Your task to perform on an android device: Do I have any events tomorrow? Image 0: 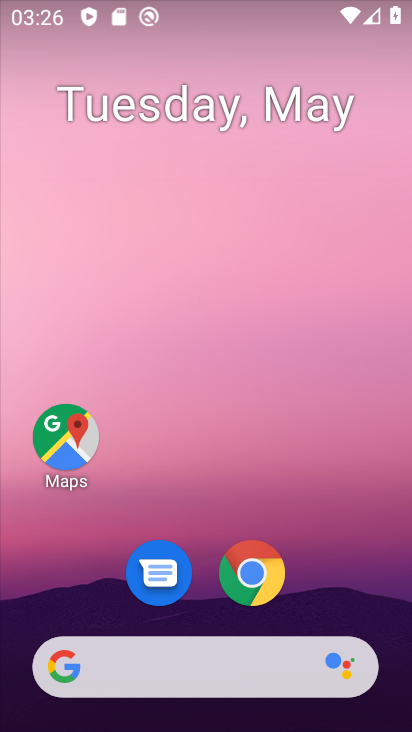
Step 0: drag from (195, 514) to (282, 13)
Your task to perform on an android device: Do I have any events tomorrow? Image 1: 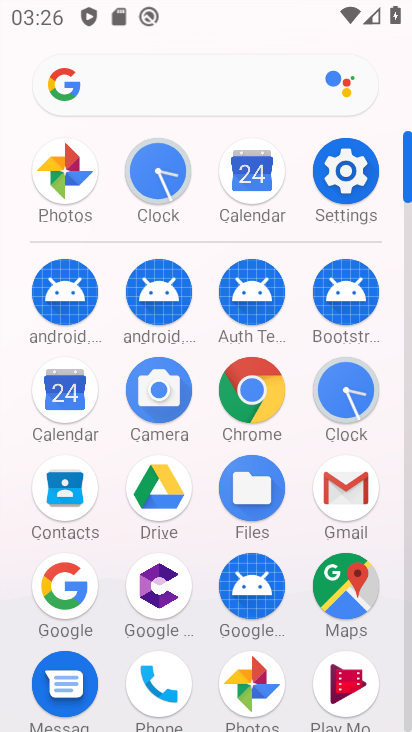
Step 1: click (61, 400)
Your task to perform on an android device: Do I have any events tomorrow? Image 2: 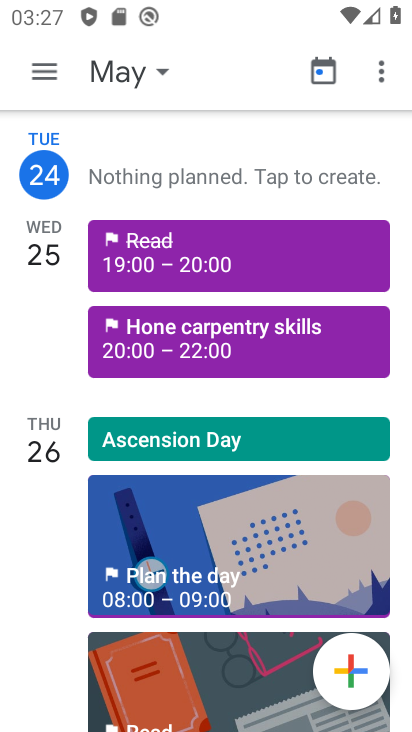
Step 2: drag from (280, 226) to (260, 557)
Your task to perform on an android device: Do I have any events tomorrow? Image 3: 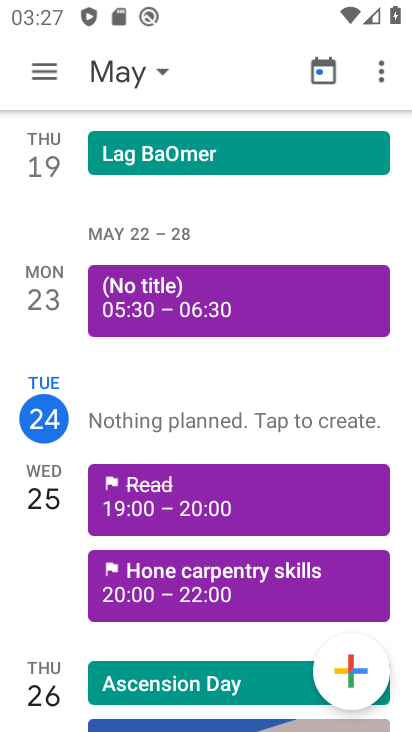
Step 3: click (150, 577)
Your task to perform on an android device: Do I have any events tomorrow? Image 4: 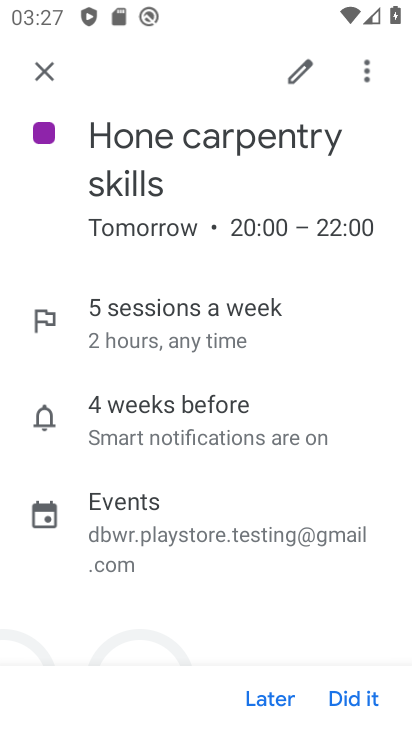
Step 4: task complete